Your task to perform on an android device: set the timer Image 0: 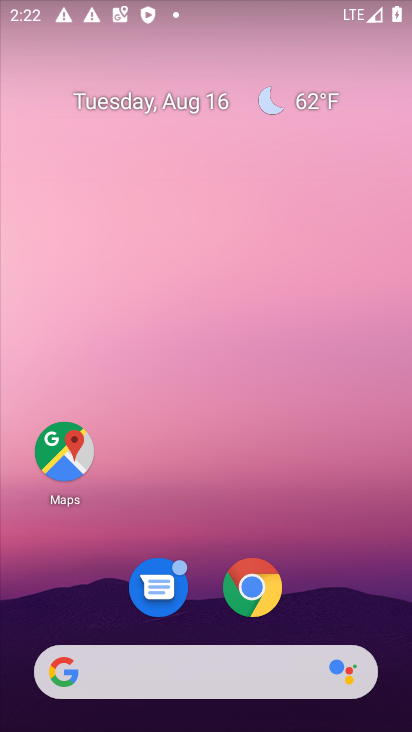
Step 0: drag from (197, 539) to (234, 25)
Your task to perform on an android device: set the timer Image 1: 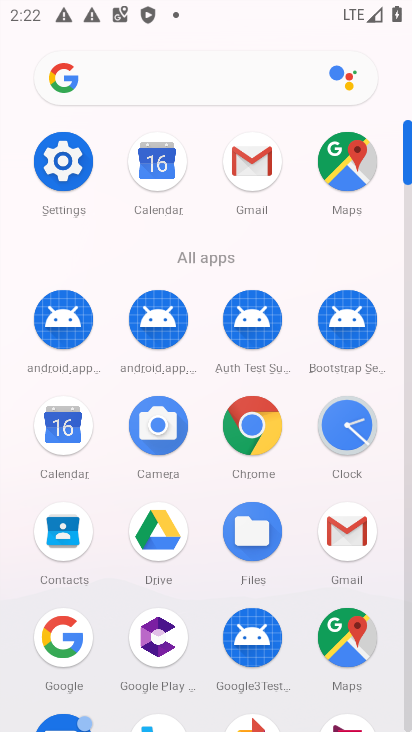
Step 1: click (337, 420)
Your task to perform on an android device: set the timer Image 2: 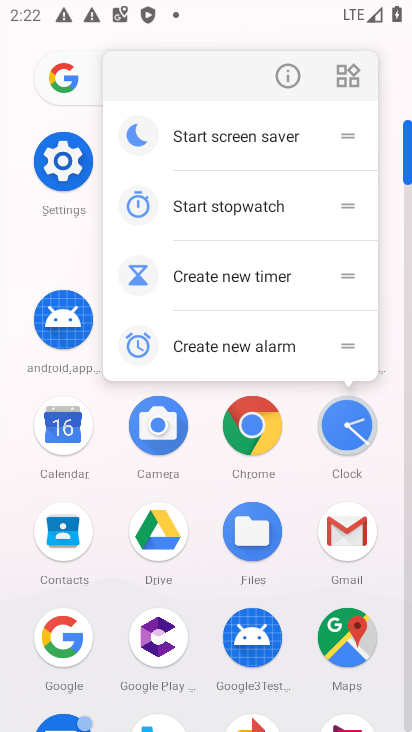
Step 2: click (348, 416)
Your task to perform on an android device: set the timer Image 3: 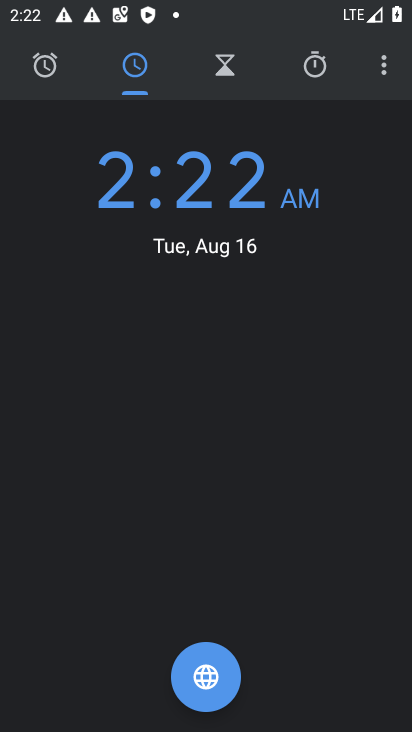
Step 3: click (315, 66)
Your task to perform on an android device: set the timer Image 4: 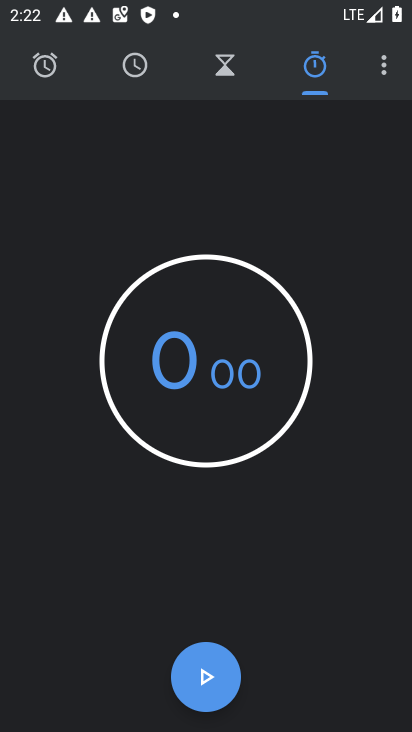
Step 4: click (228, 54)
Your task to perform on an android device: set the timer Image 5: 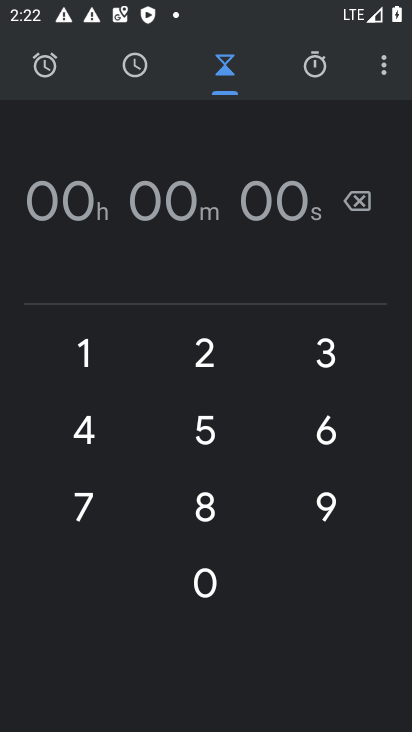
Step 5: click (199, 349)
Your task to perform on an android device: set the timer Image 6: 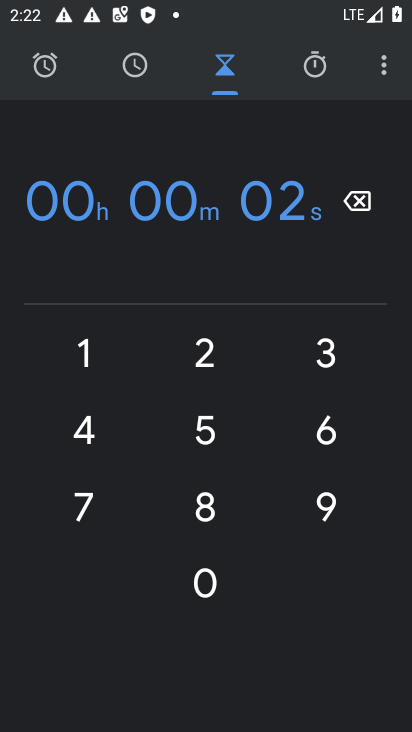
Step 6: click (333, 332)
Your task to perform on an android device: set the timer Image 7: 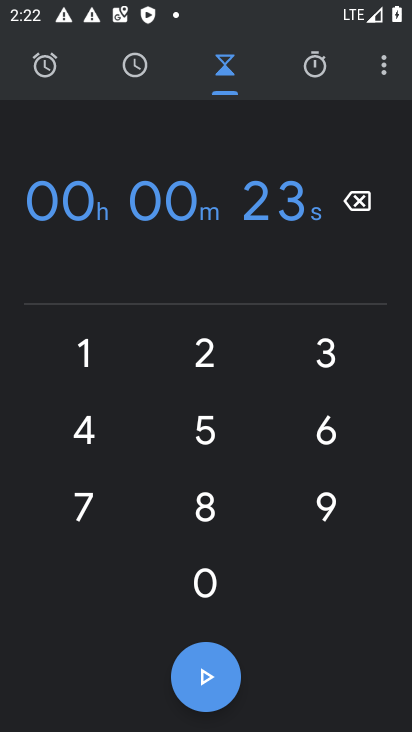
Step 7: click (188, 435)
Your task to perform on an android device: set the timer Image 8: 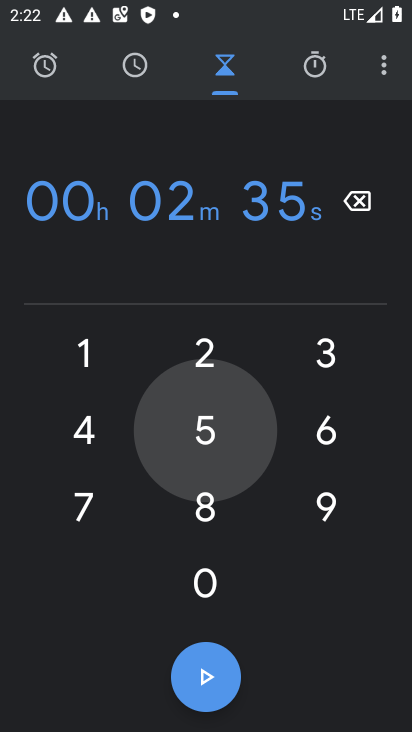
Step 8: click (70, 343)
Your task to perform on an android device: set the timer Image 9: 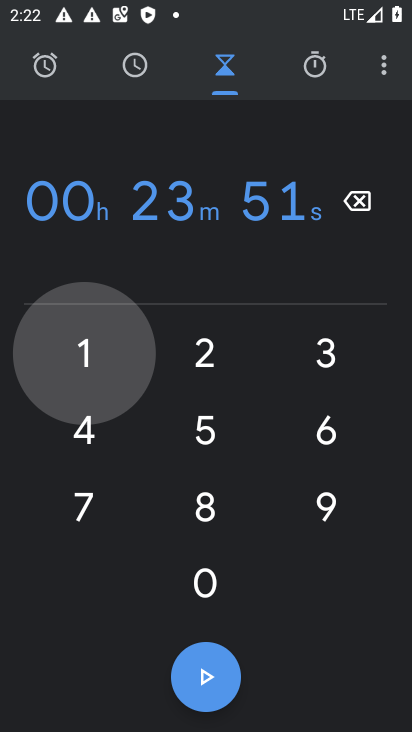
Step 9: click (78, 407)
Your task to perform on an android device: set the timer Image 10: 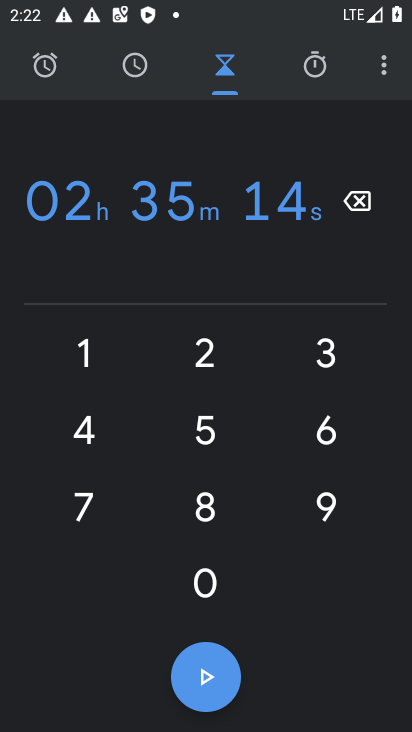
Step 10: click (205, 684)
Your task to perform on an android device: set the timer Image 11: 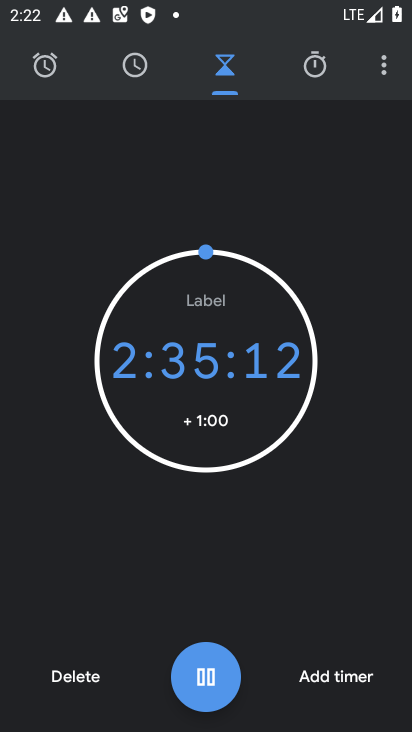
Step 11: task complete